Your task to perform on an android device: check data usage Image 0: 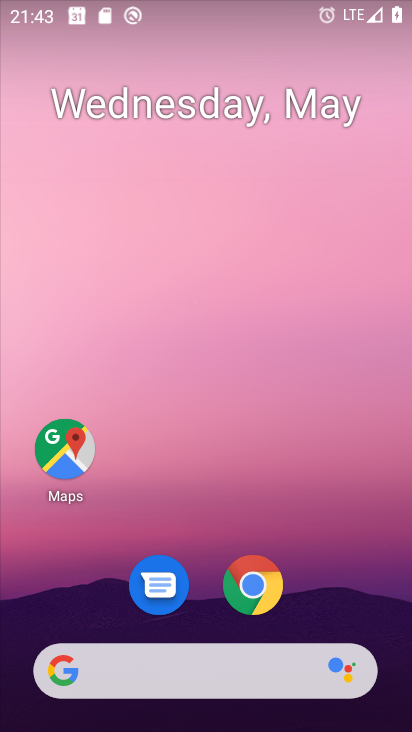
Step 0: drag from (344, 575) to (351, 66)
Your task to perform on an android device: check data usage Image 1: 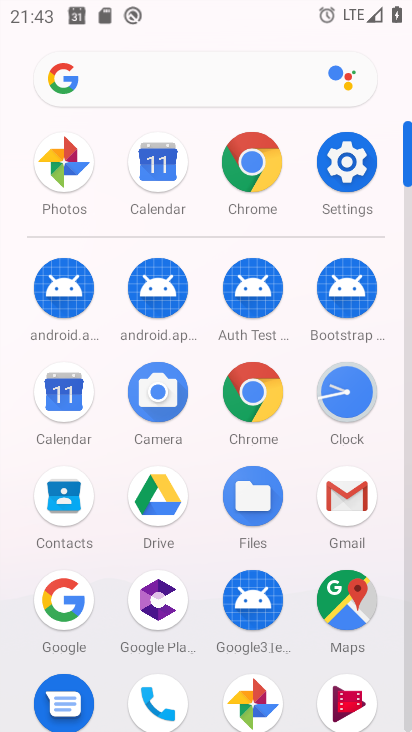
Step 1: click (338, 161)
Your task to perform on an android device: check data usage Image 2: 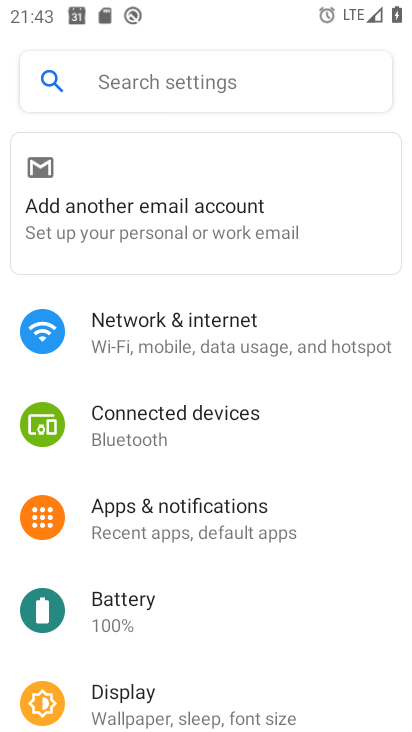
Step 2: click (200, 325)
Your task to perform on an android device: check data usage Image 3: 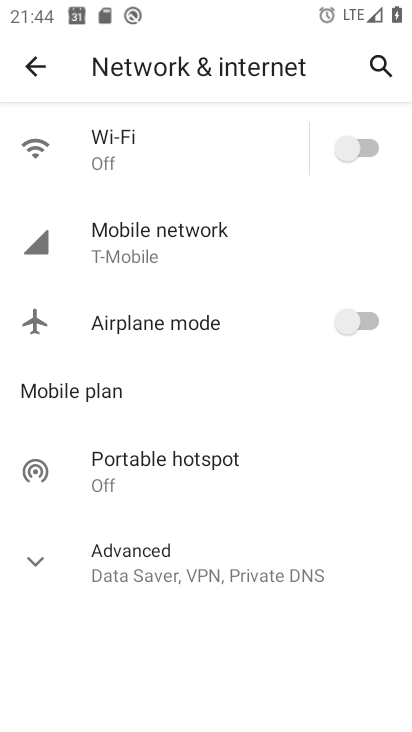
Step 3: click (304, 227)
Your task to perform on an android device: check data usage Image 4: 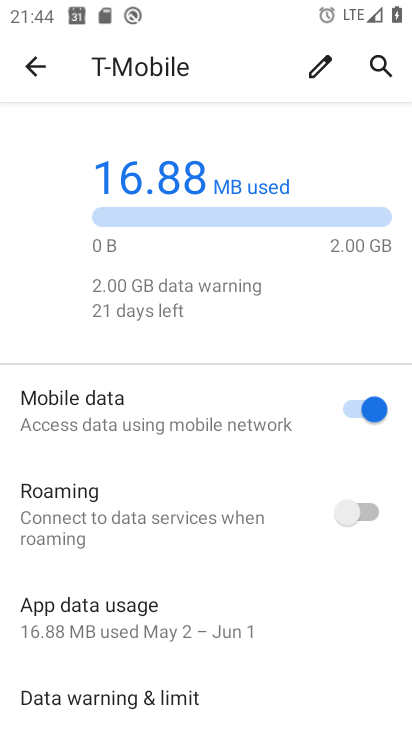
Step 4: task complete